Your task to perform on an android device: install app "Messenger Lite" Image 0: 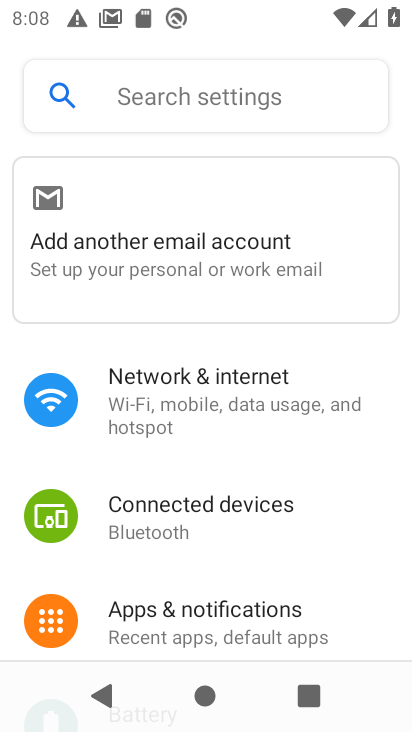
Step 0: press home button
Your task to perform on an android device: install app "Messenger Lite" Image 1: 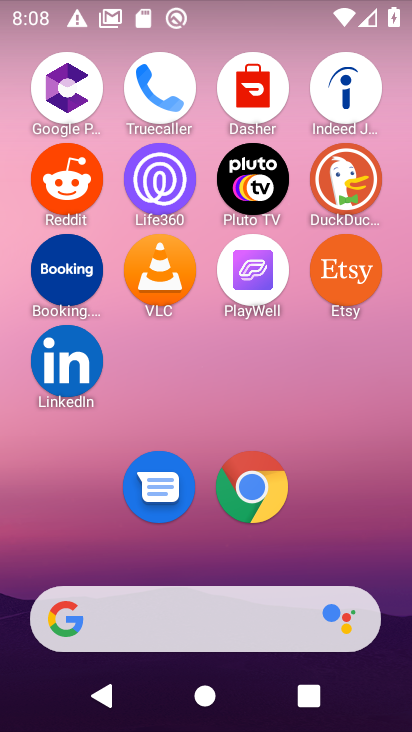
Step 1: drag from (357, 328) to (361, 55)
Your task to perform on an android device: install app "Messenger Lite" Image 2: 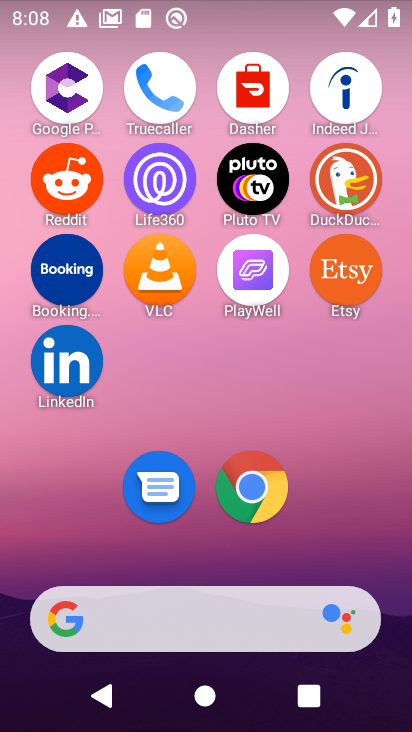
Step 2: drag from (381, 548) to (403, 82)
Your task to perform on an android device: install app "Messenger Lite" Image 3: 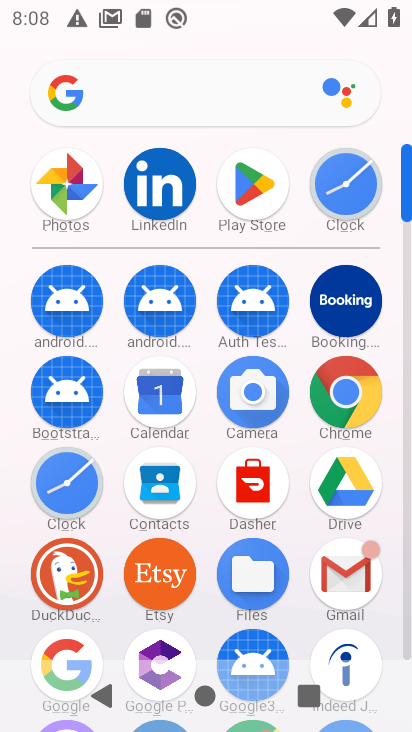
Step 3: click (254, 192)
Your task to perform on an android device: install app "Messenger Lite" Image 4: 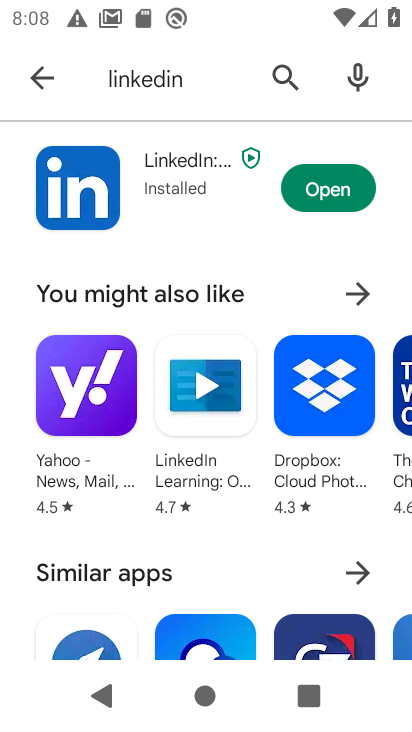
Step 4: click (286, 67)
Your task to perform on an android device: install app "Messenger Lite" Image 5: 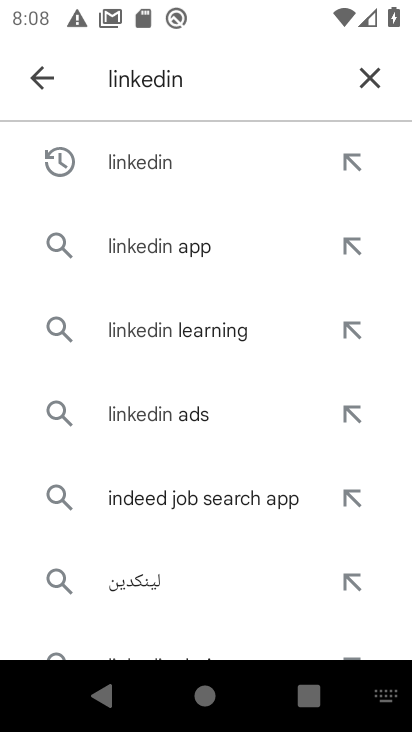
Step 5: click (377, 87)
Your task to perform on an android device: install app "Messenger Lite" Image 6: 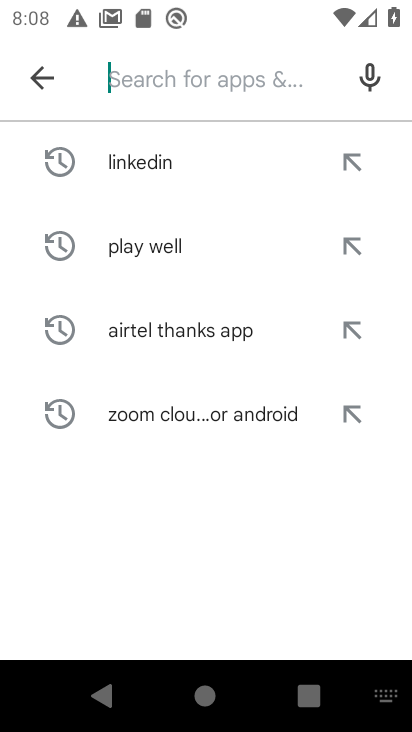
Step 6: type "messenger"
Your task to perform on an android device: install app "Messenger Lite" Image 7: 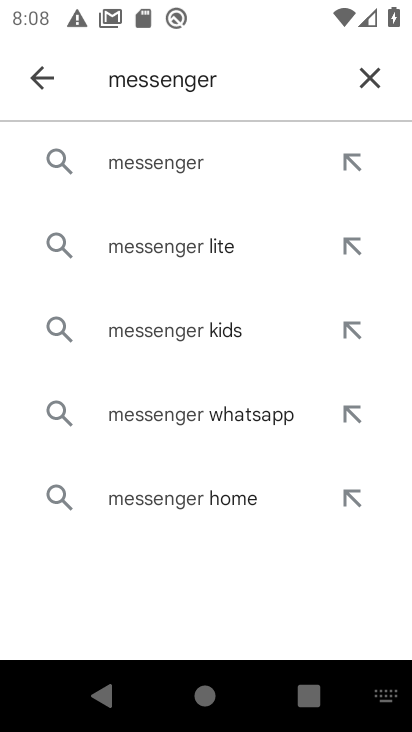
Step 7: click (158, 166)
Your task to perform on an android device: install app "Messenger Lite" Image 8: 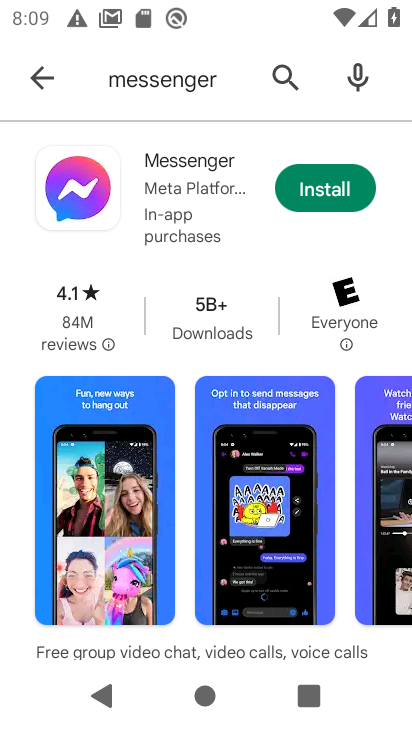
Step 8: click (350, 191)
Your task to perform on an android device: install app "Messenger Lite" Image 9: 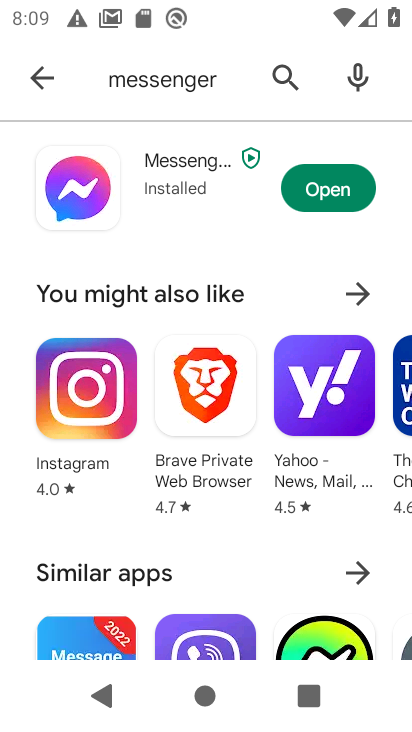
Step 9: task complete